Your task to perform on an android device: delete a single message in the gmail app Image 0: 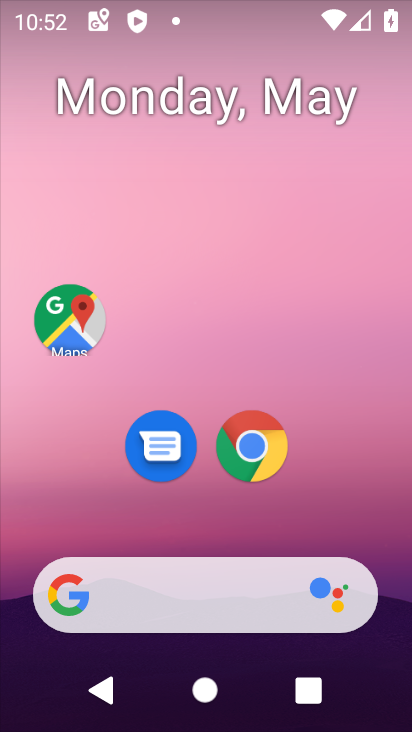
Step 0: drag from (251, 563) to (266, 27)
Your task to perform on an android device: delete a single message in the gmail app Image 1: 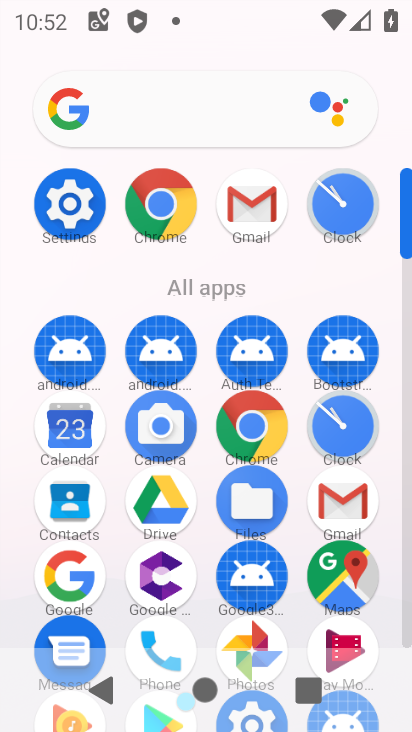
Step 1: click (324, 497)
Your task to perform on an android device: delete a single message in the gmail app Image 2: 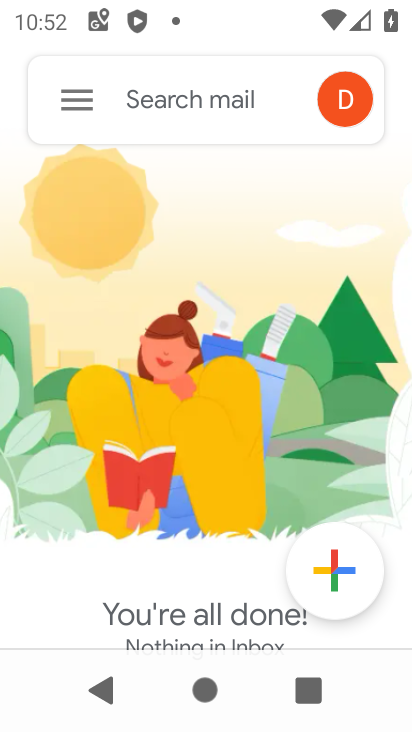
Step 2: task complete